Your task to perform on an android device: Is it going to rain tomorrow? Image 0: 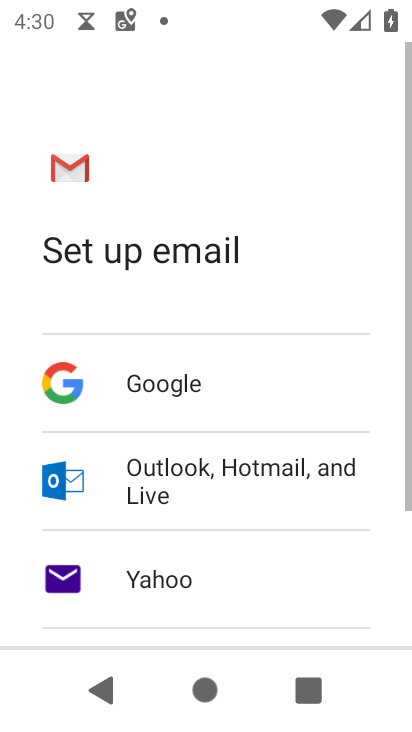
Step 0: press home button
Your task to perform on an android device: Is it going to rain tomorrow? Image 1: 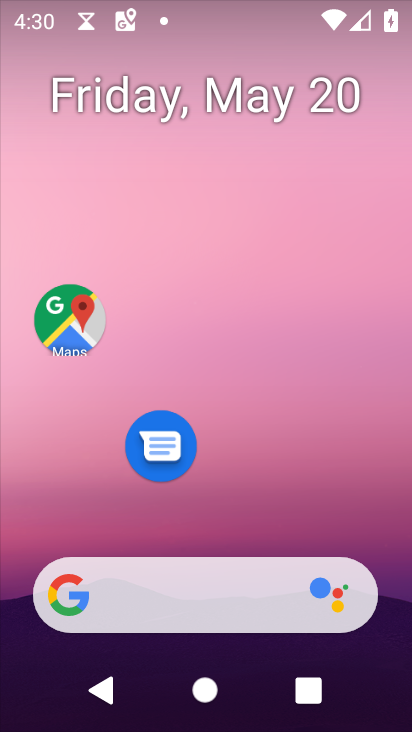
Step 1: click (185, 603)
Your task to perform on an android device: Is it going to rain tomorrow? Image 2: 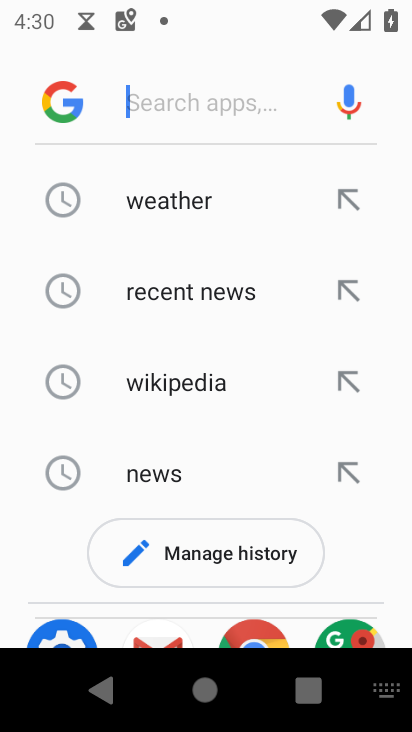
Step 2: click (197, 193)
Your task to perform on an android device: Is it going to rain tomorrow? Image 3: 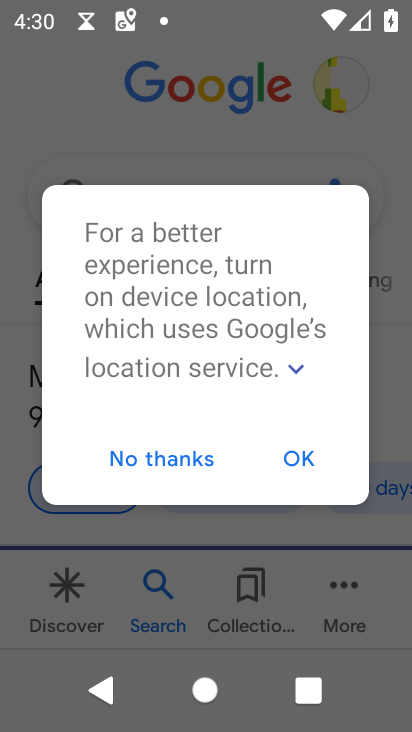
Step 3: click (189, 458)
Your task to perform on an android device: Is it going to rain tomorrow? Image 4: 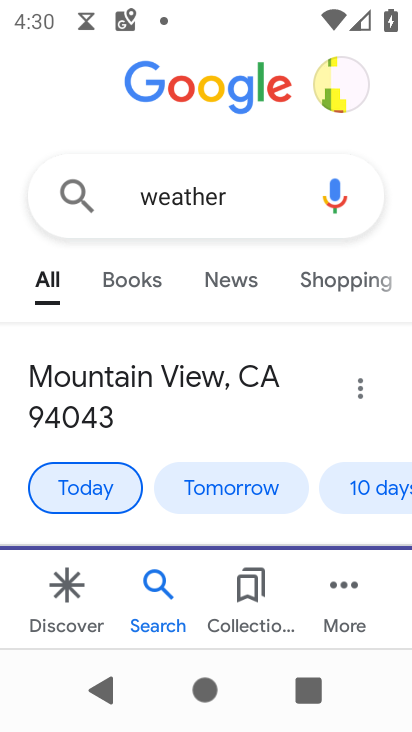
Step 4: drag from (188, 453) to (215, 180)
Your task to perform on an android device: Is it going to rain tomorrow? Image 5: 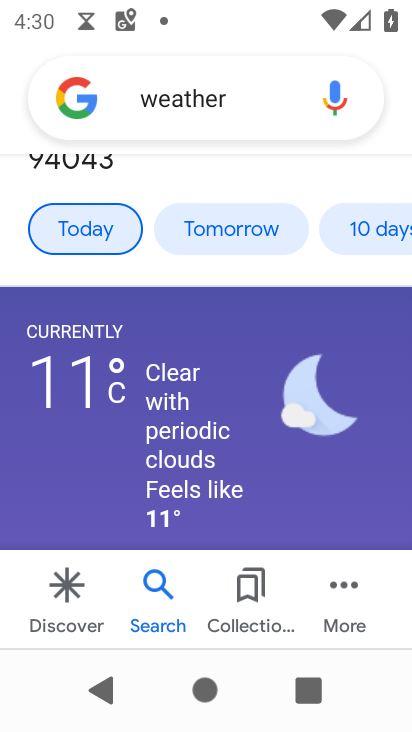
Step 5: click (208, 247)
Your task to perform on an android device: Is it going to rain tomorrow? Image 6: 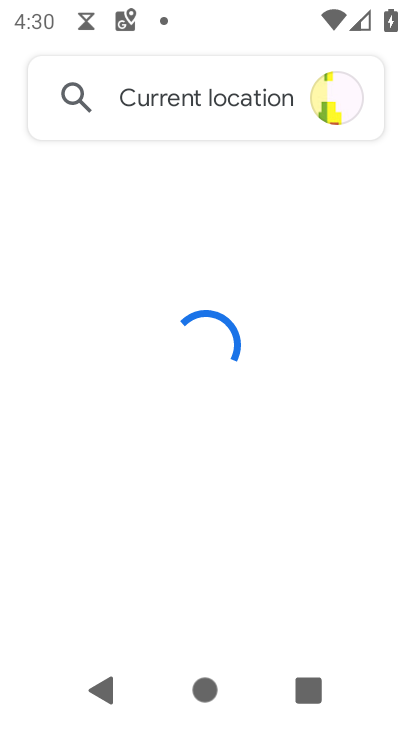
Step 6: click (210, 230)
Your task to perform on an android device: Is it going to rain tomorrow? Image 7: 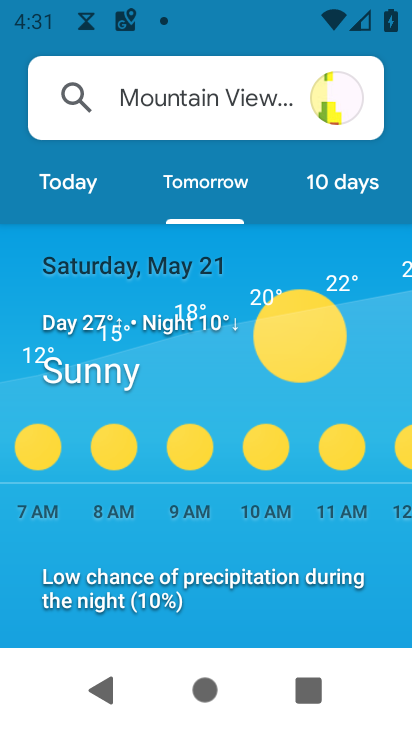
Step 7: task complete